Your task to perform on an android device: Go to display settings Image 0: 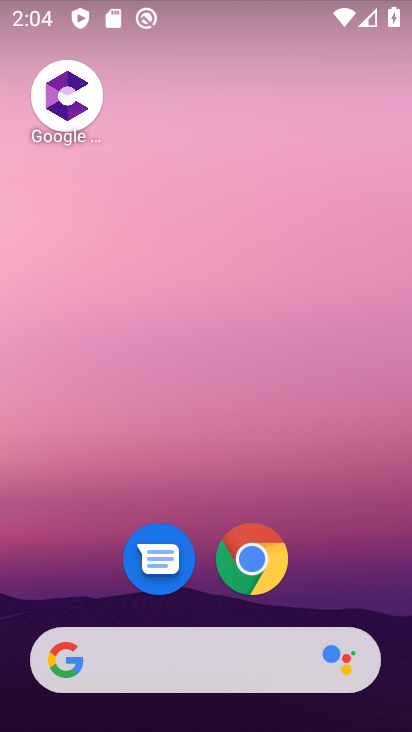
Step 0: drag from (238, 622) to (145, 30)
Your task to perform on an android device: Go to display settings Image 1: 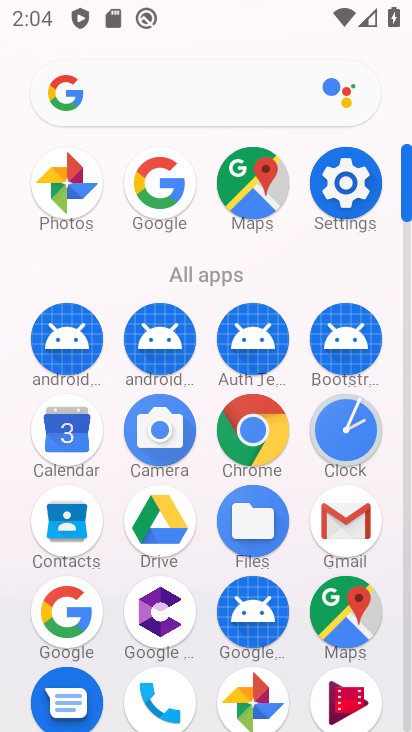
Step 1: click (355, 181)
Your task to perform on an android device: Go to display settings Image 2: 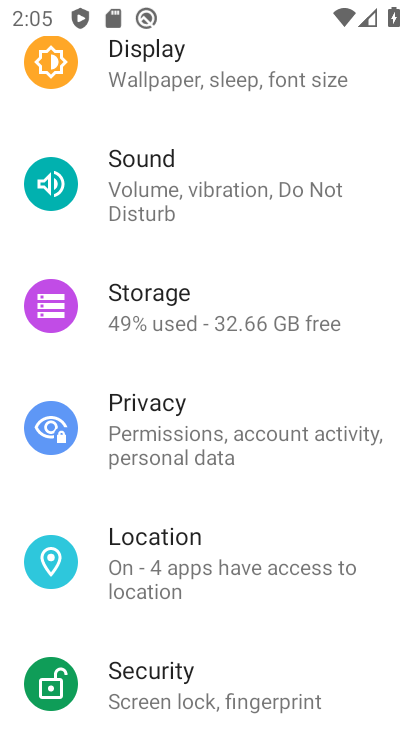
Step 2: click (135, 81)
Your task to perform on an android device: Go to display settings Image 3: 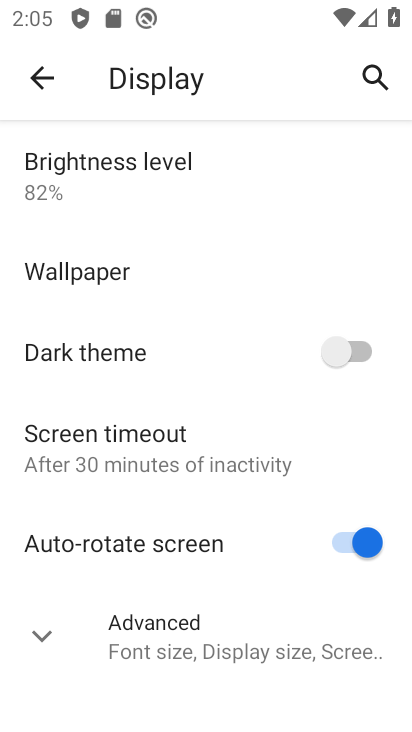
Step 3: task complete